Your task to perform on an android device: change timer sound Image 0: 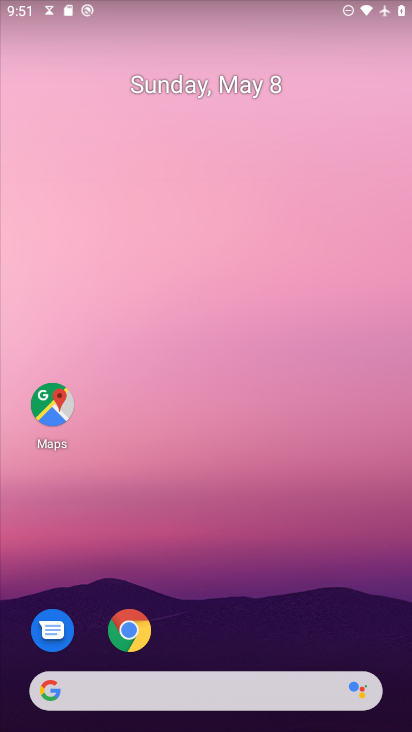
Step 0: drag from (223, 689) to (308, 200)
Your task to perform on an android device: change timer sound Image 1: 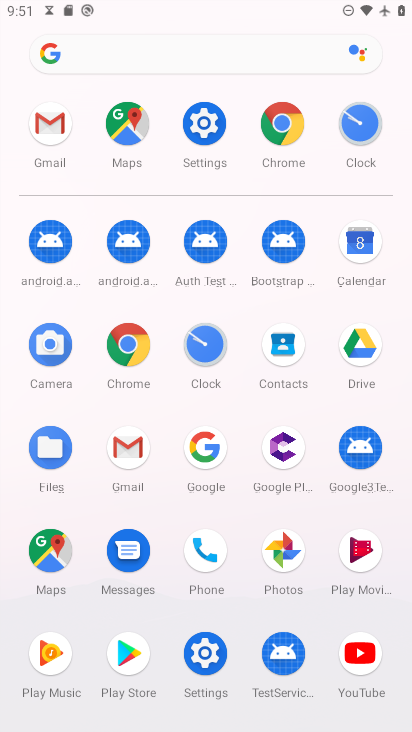
Step 1: click (358, 129)
Your task to perform on an android device: change timer sound Image 2: 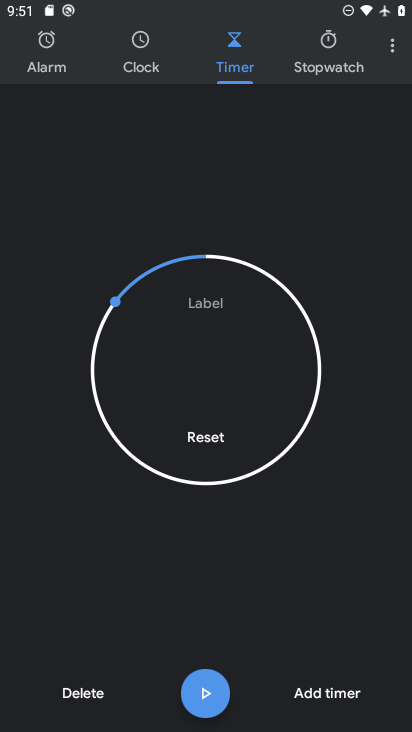
Step 2: click (392, 50)
Your task to perform on an android device: change timer sound Image 3: 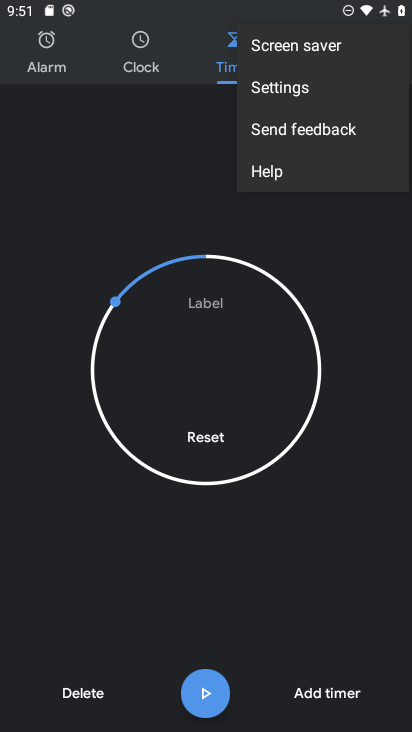
Step 3: click (308, 88)
Your task to perform on an android device: change timer sound Image 4: 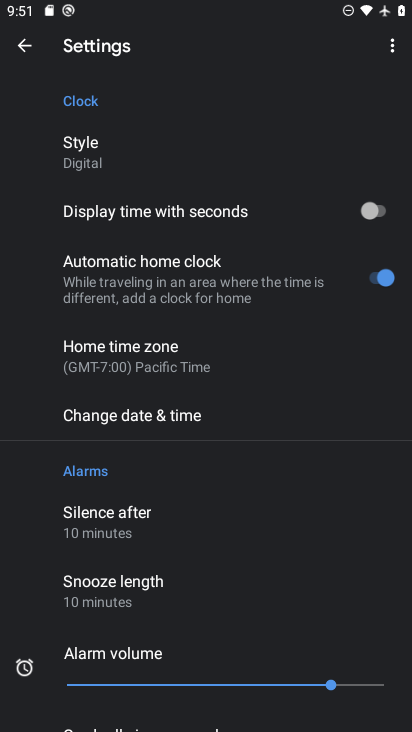
Step 4: drag from (238, 523) to (283, 81)
Your task to perform on an android device: change timer sound Image 5: 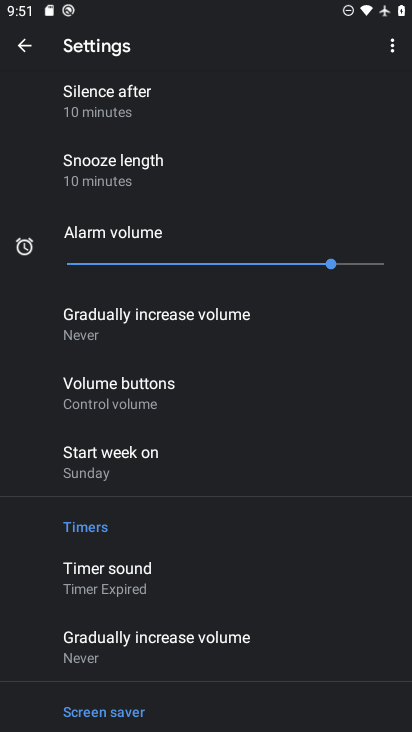
Step 5: click (122, 579)
Your task to perform on an android device: change timer sound Image 6: 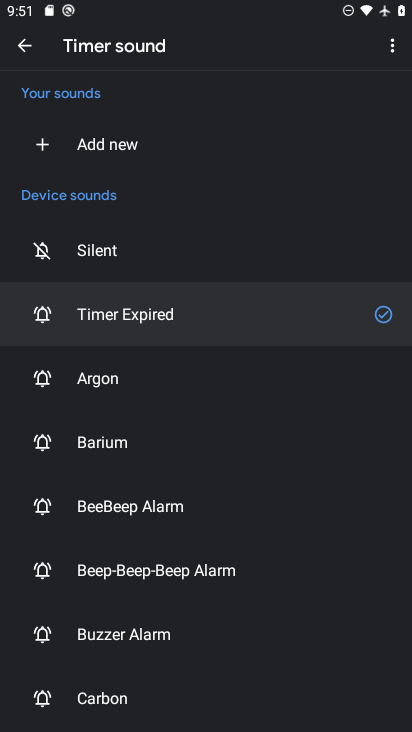
Step 6: click (122, 450)
Your task to perform on an android device: change timer sound Image 7: 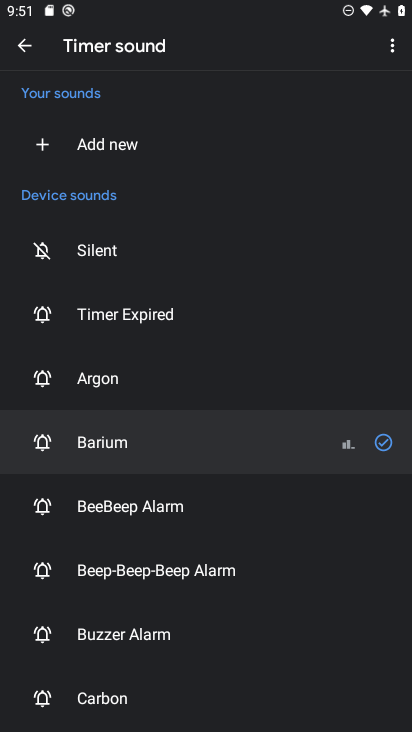
Step 7: click (185, 464)
Your task to perform on an android device: change timer sound Image 8: 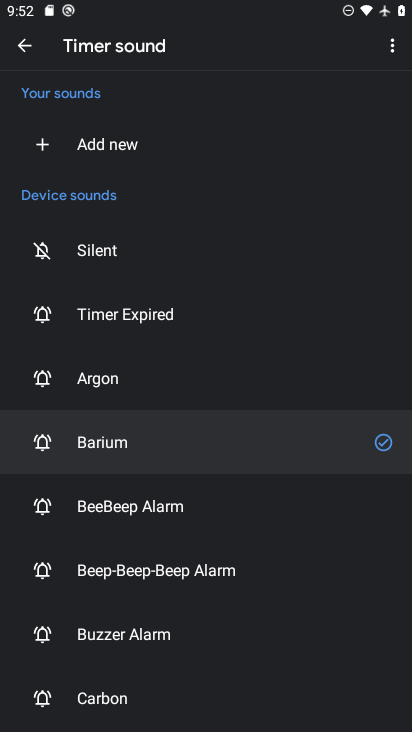
Step 8: task complete